Your task to perform on an android device: What is the news today? Image 0: 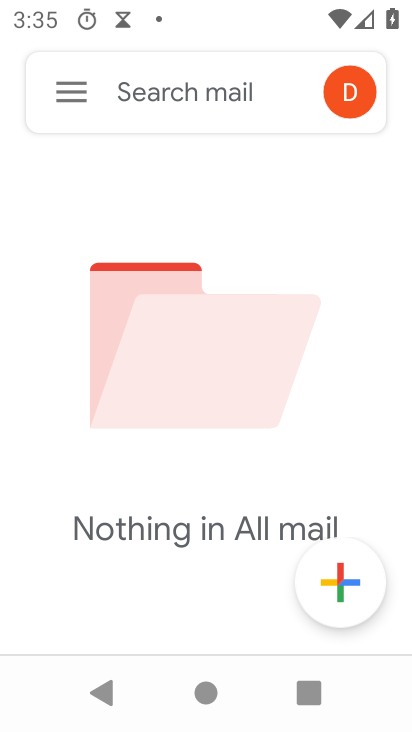
Step 0: press home button
Your task to perform on an android device: What is the news today? Image 1: 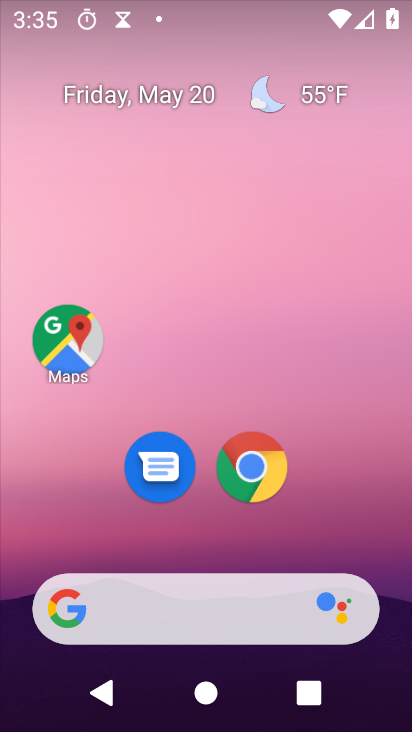
Step 1: click (152, 598)
Your task to perform on an android device: What is the news today? Image 2: 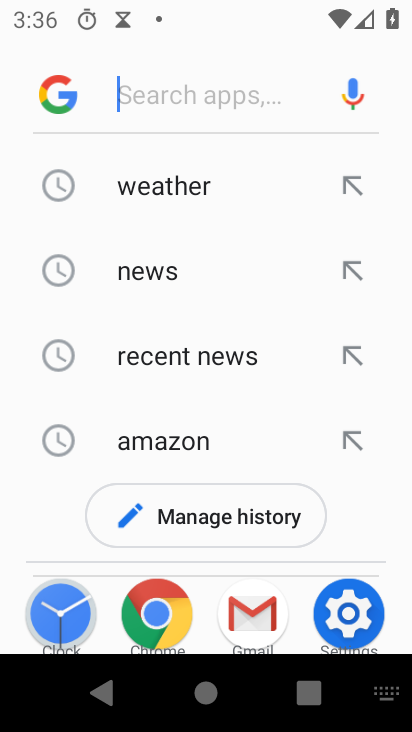
Step 2: type "what is the news today"
Your task to perform on an android device: What is the news today? Image 3: 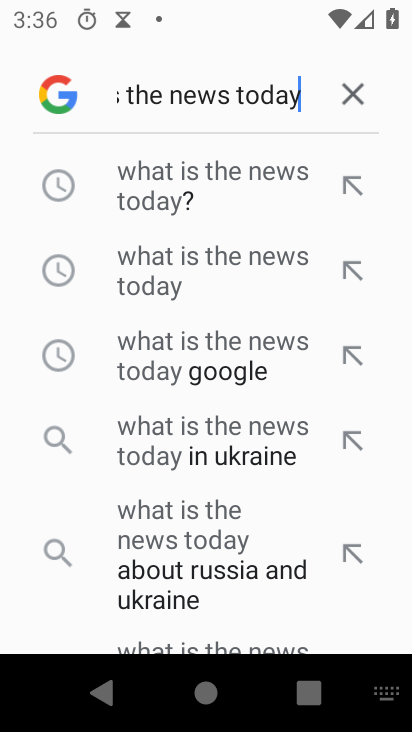
Step 3: click (174, 185)
Your task to perform on an android device: What is the news today? Image 4: 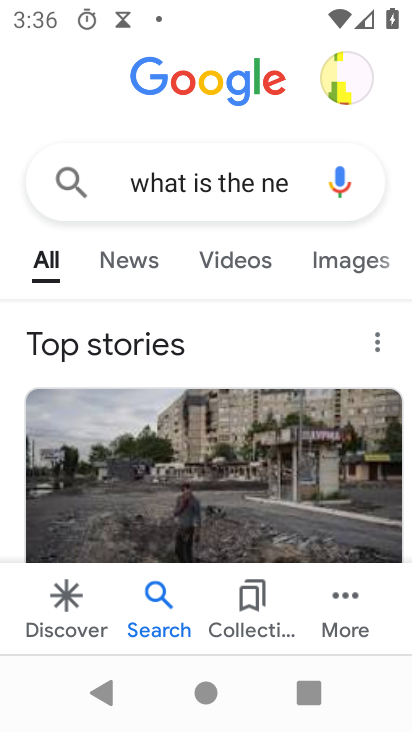
Step 4: click (111, 260)
Your task to perform on an android device: What is the news today? Image 5: 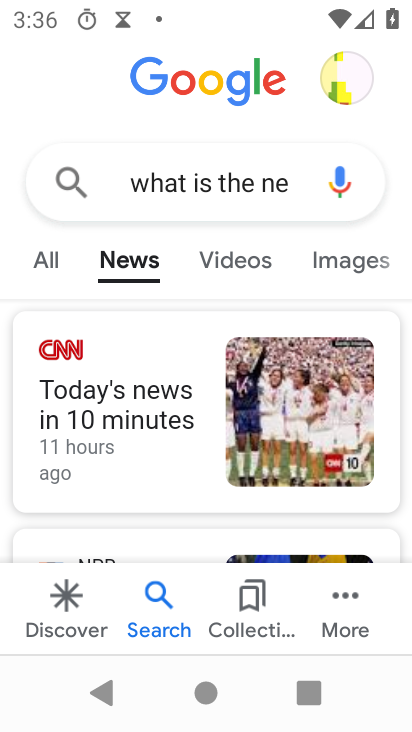
Step 5: task complete